Your task to perform on an android device: Do I have any events today? Image 0: 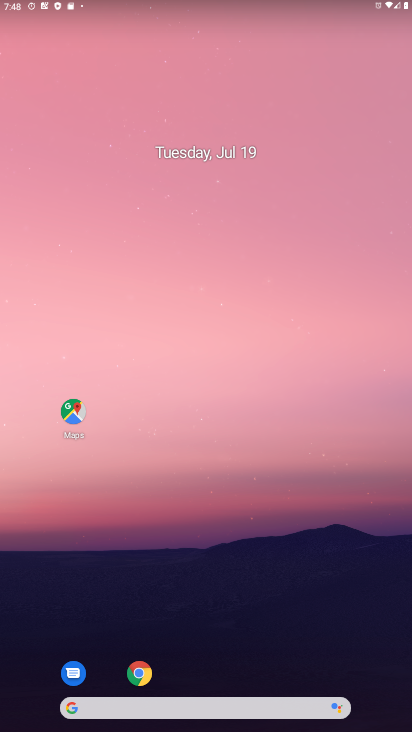
Step 0: drag from (283, 667) to (354, 111)
Your task to perform on an android device: Do I have any events today? Image 1: 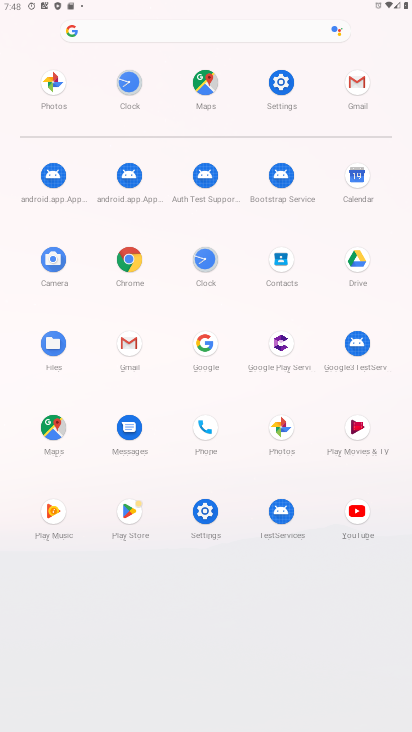
Step 1: click (358, 175)
Your task to perform on an android device: Do I have any events today? Image 2: 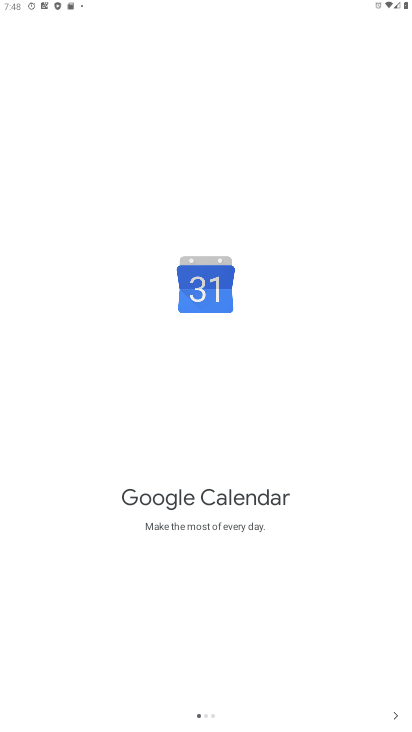
Step 2: click (388, 719)
Your task to perform on an android device: Do I have any events today? Image 3: 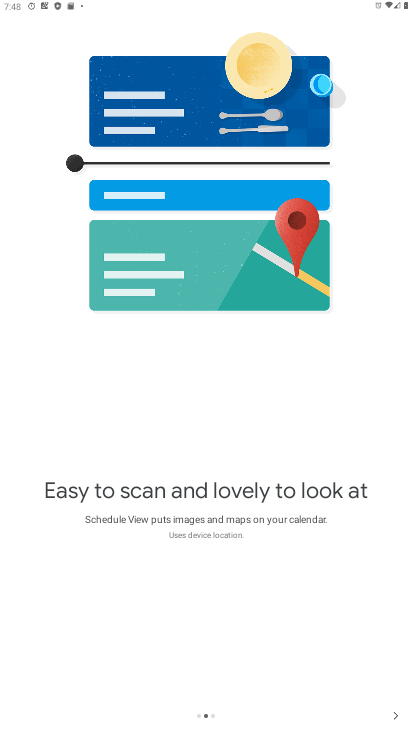
Step 3: click (388, 720)
Your task to perform on an android device: Do I have any events today? Image 4: 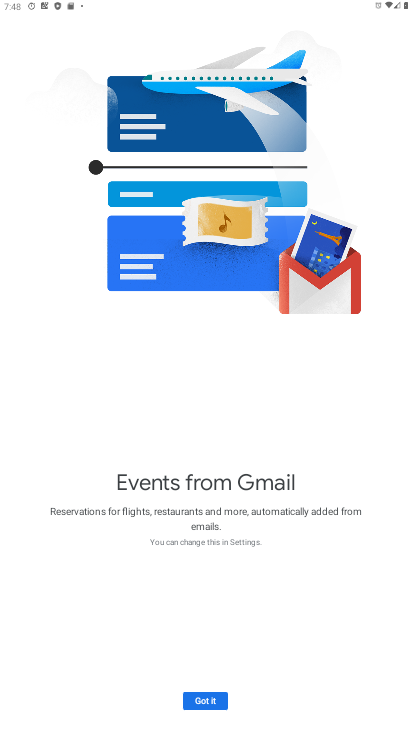
Step 4: click (211, 715)
Your task to perform on an android device: Do I have any events today? Image 5: 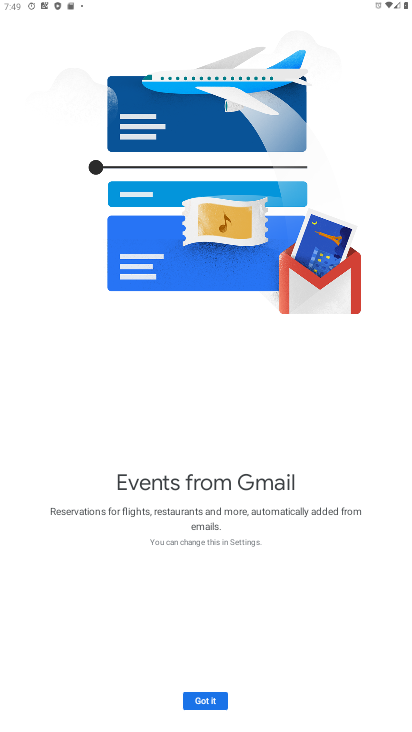
Step 5: click (205, 697)
Your task to perform on an android device: Do I have any events today? Image 6: 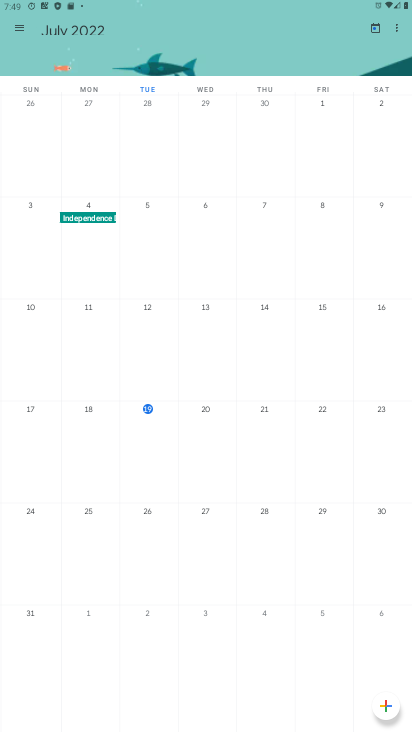
Step 6: click (153, 416)
Your task to perform on an android device: Do I have any events today? Image 7: 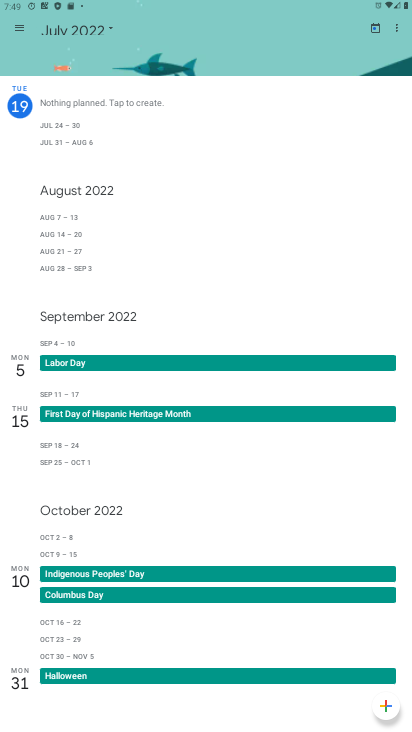
Step 7: task complete